Your task to perform on an android device: manage bookmarks in the chrome app Image 0: 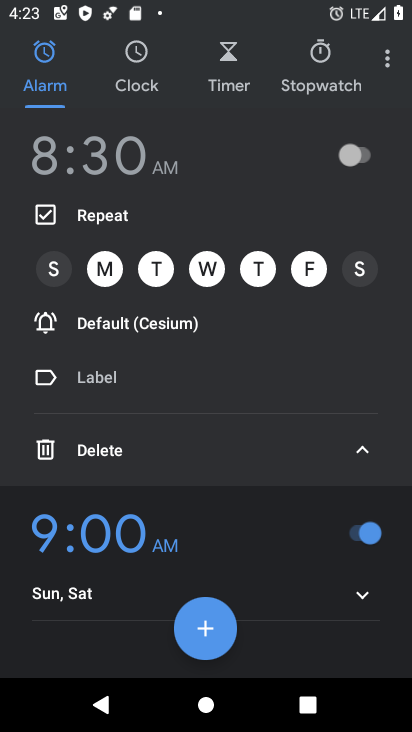
Step 0: press home button
Your task to perform on an android device: manage bookmarks in the chrome app Image 1: 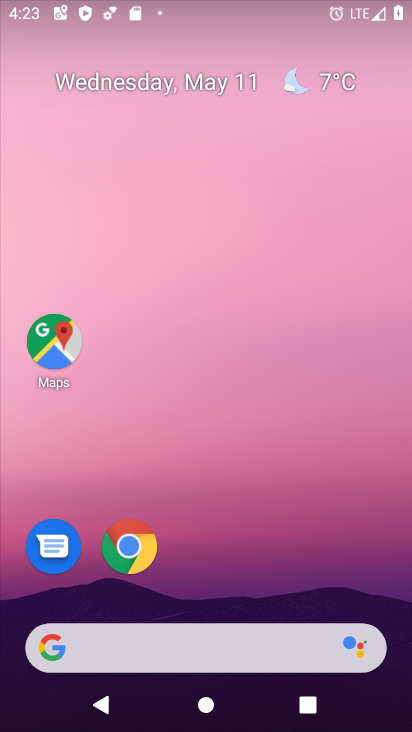
Step 1: drag from (220, 617) to (292, 26)
Your task to perform on an android device: manage bookmarks in the chrome app Image 2: 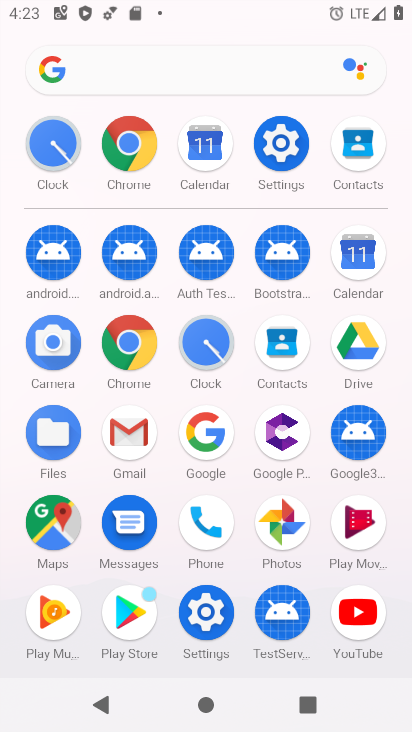
Step 2: click (133, 356)
Your task to perform on an android device: manage bookmarks in the chrome app Image 3: 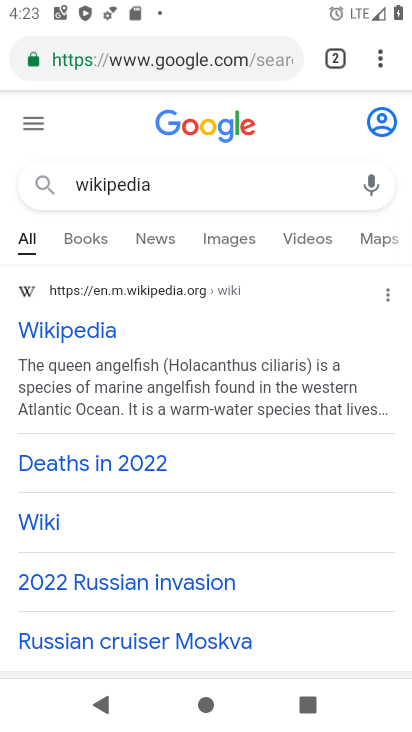
Step 3: task complete